Your task to perform on an android device: Toggle the flashlight Image 0: 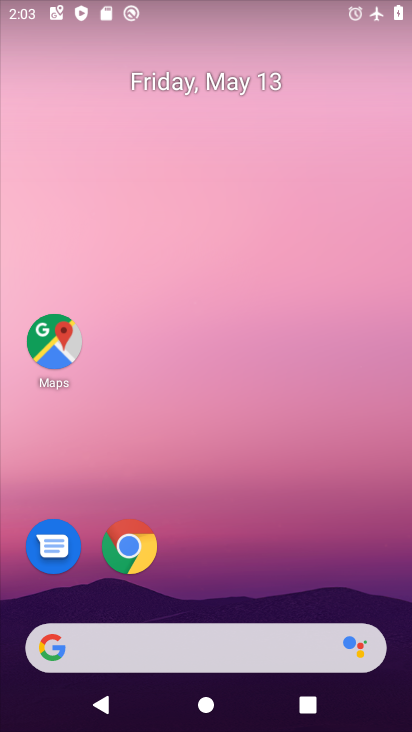
Step 0: drag from (293, 2) to (279, 429)
Your task to perform on an android device: Toggle the flashlight Image 1: 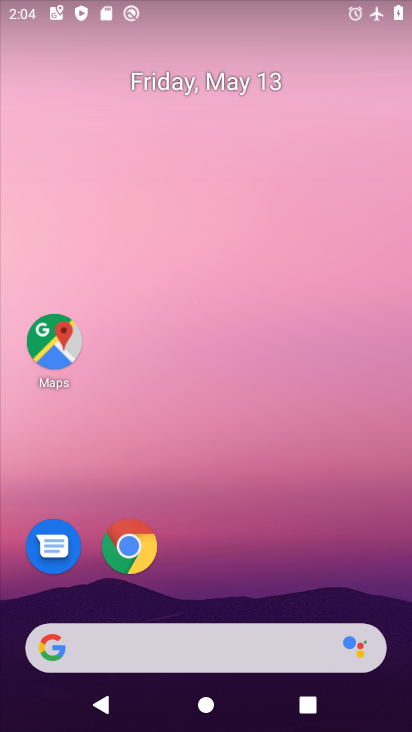
Step 1: task complete